Your task to perform on an android device: Open Yahoo.com Image 0: 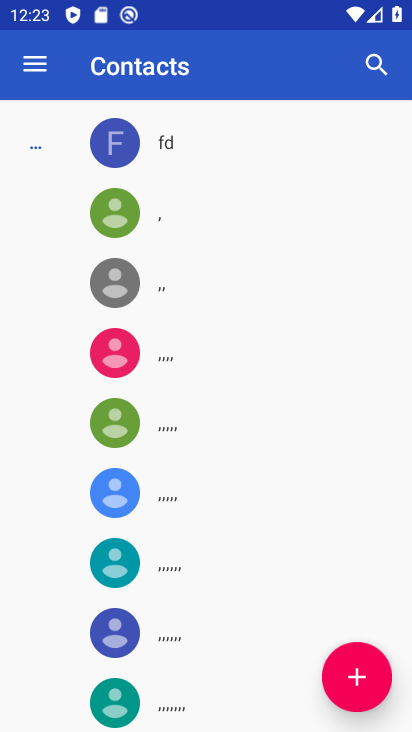
Step 0: press home button
Your task to perform on an android device: Open Yahoo.com Image 1: 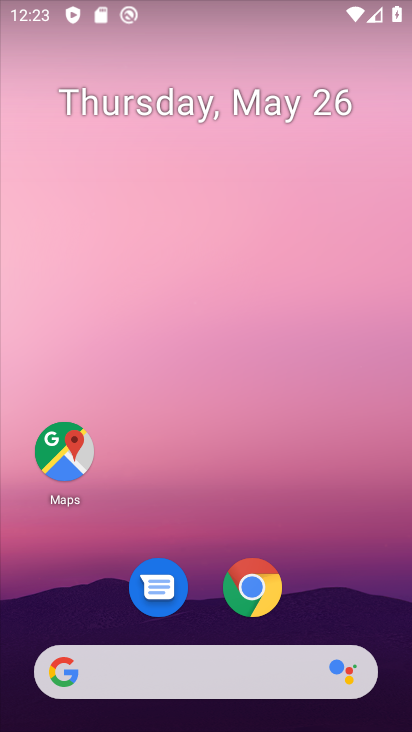
Step 1: drag from (350, 594) to (406, 344)
Your task to perform on an android device: Open Yahoo.com Image 2: 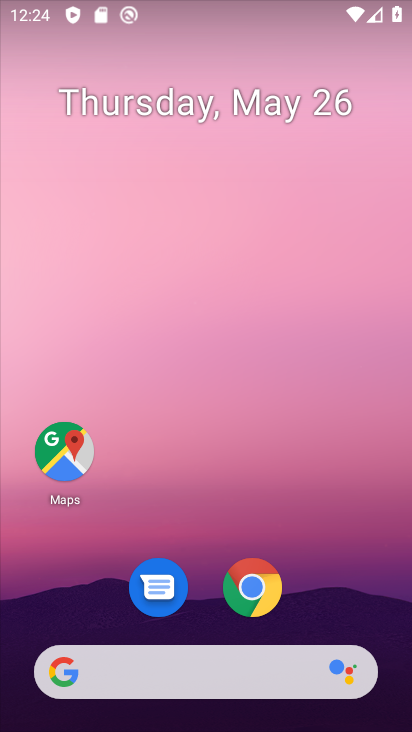
Step 2: drag from (338, 584) to (363, 178)
Your task to perform on an android device: Open Yahoo.com Image 3: 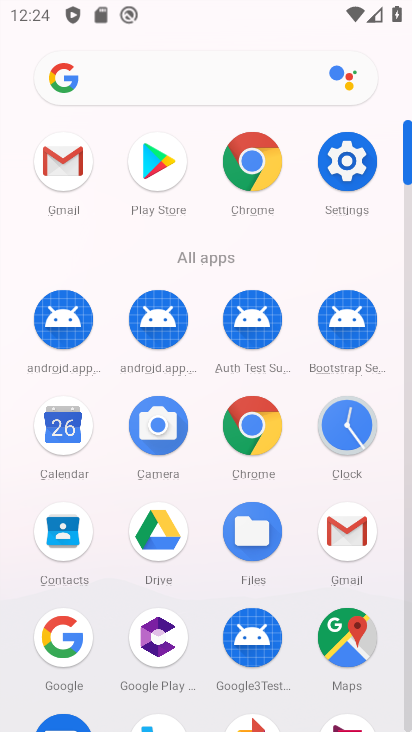
Step 3: click (266, 437)
Your task to perform on an android device: Open Yahoo.com Image 4: 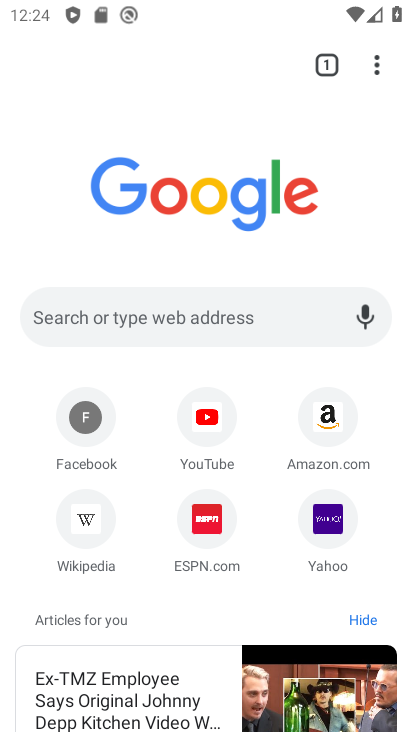
Step 4: click (325, 527)
Your task to perform on an android device: Open Yahoo.com Image 5: 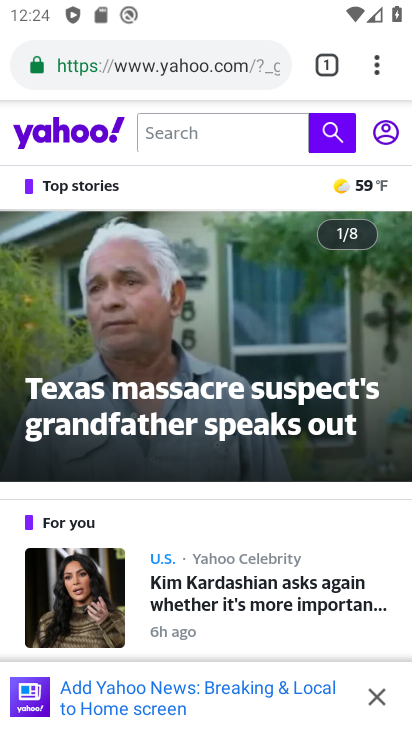
Step 5: task complete